Your task to perform on an android device: Open accessibility settings Image 0: 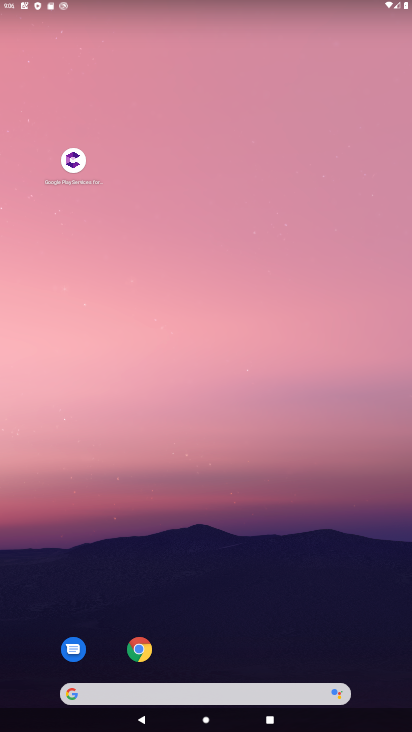
Step 0: press home button
Your task to perform on an android device: Open accessibility settings Image 1: 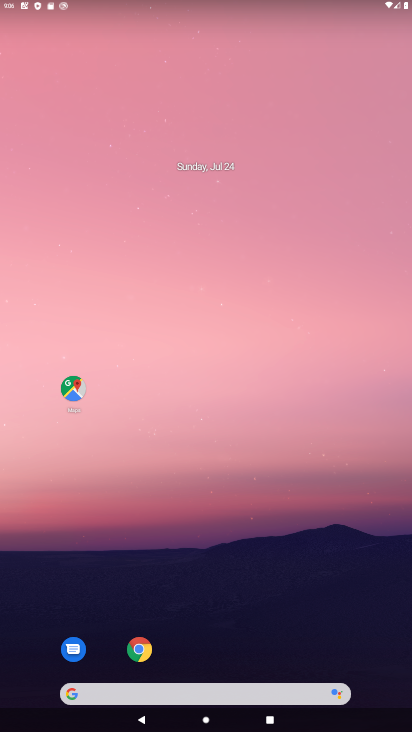
Step 1: drag from (339, 610) to (354, 82)
Your task to perform on an android device: Open accessibility settings Image 2: 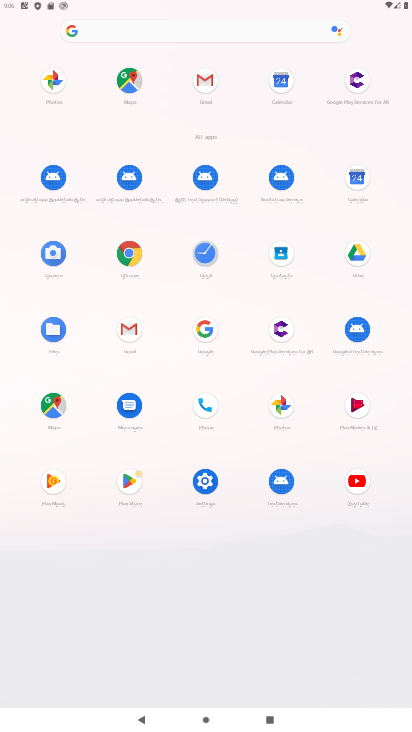
Step 2: click (201, 484)
Your task to perform on an android device: Open accessibility settings Image 3: 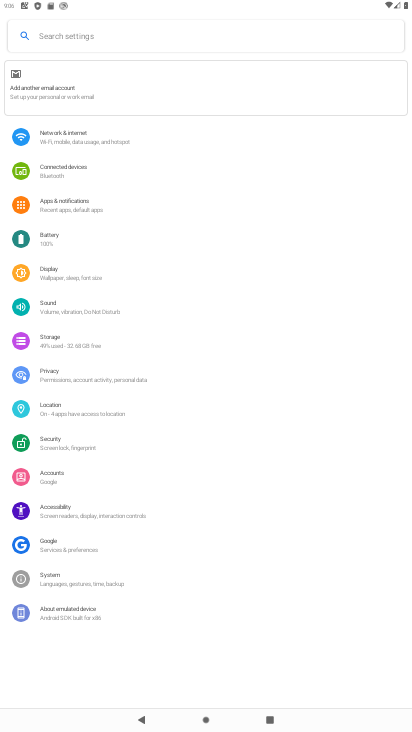
Step 3: click (137, 508)
Your task to perform on an android device: Open accessibility settings Image 4: 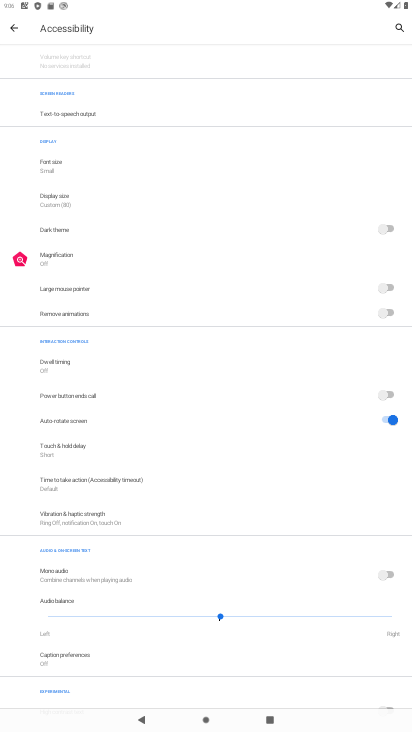
Step 4: task complete